Your task to perform on an android device: Open a new incognito window in Chrome Image 0: 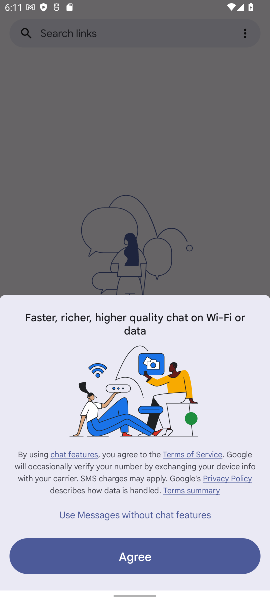
Step 0: click (198, 127)
Your task to perform on an android device: Open a new incognito window in Chrome Image 1: 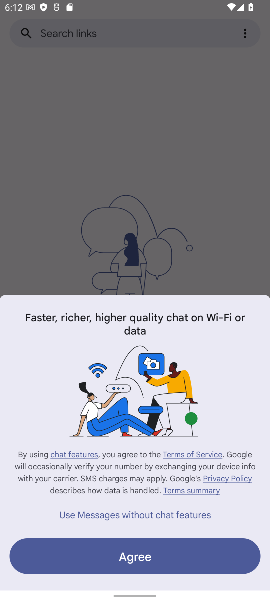
Step 1: click (197, 130)
Your task to perform on an android device: Open a new incognito window in Chrome Image 2: 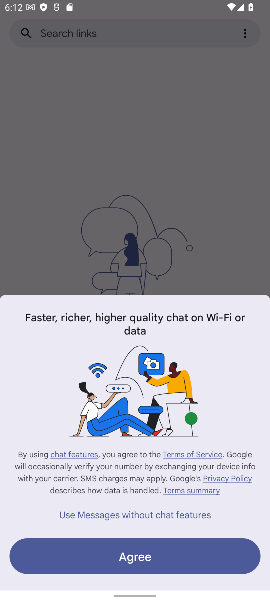
Step 2: press home button
Your task to perform on an android device: Open a new incognito window in Chrome Image 3: 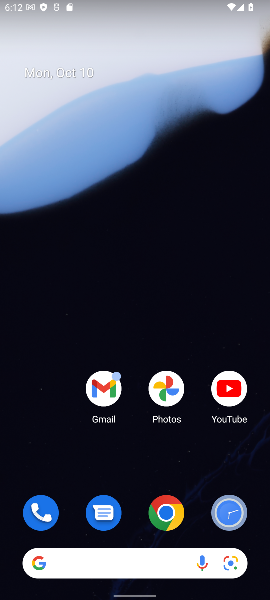
Step 3: click (167, 519)
Your task to perform on an android device: Open a new incognito window in Chrome Image 4: 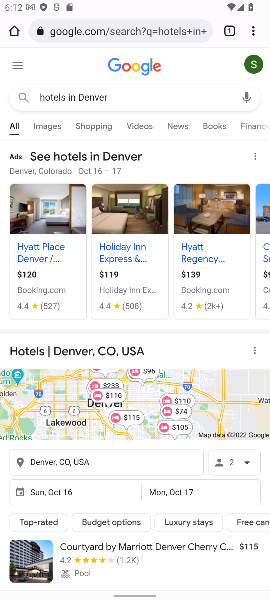
Step 4: click (255, 36)
Your task to perform on an android device: Open a new incognito window in Chrome Image 5: 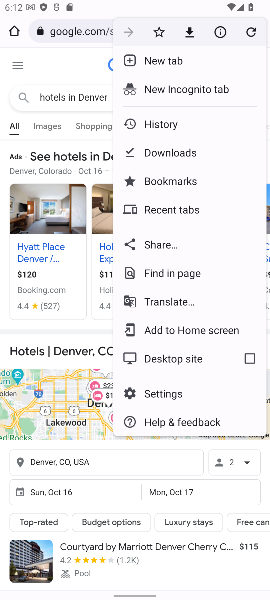
Step 5: click (174, 87)
Your task to perform on an android device: Open a new incognito window in Chrome Image 6: 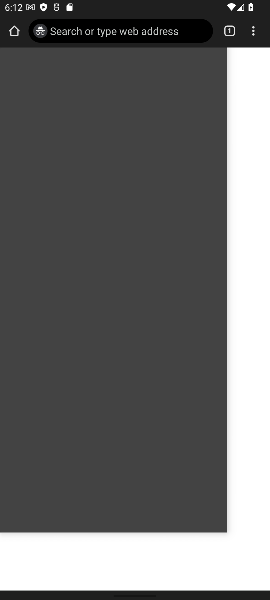
Step 6: task complete